Your task to perform on an android device: Open the stopwatch Image 0: 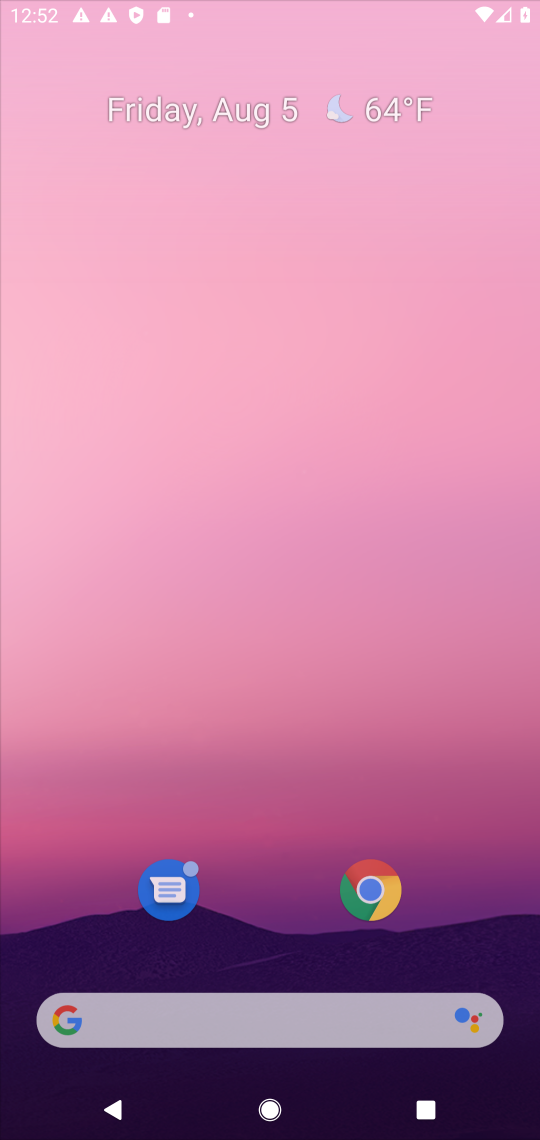
Step 0: press home button
Your task to perform on an android device: Open the stopwatch Image 1: 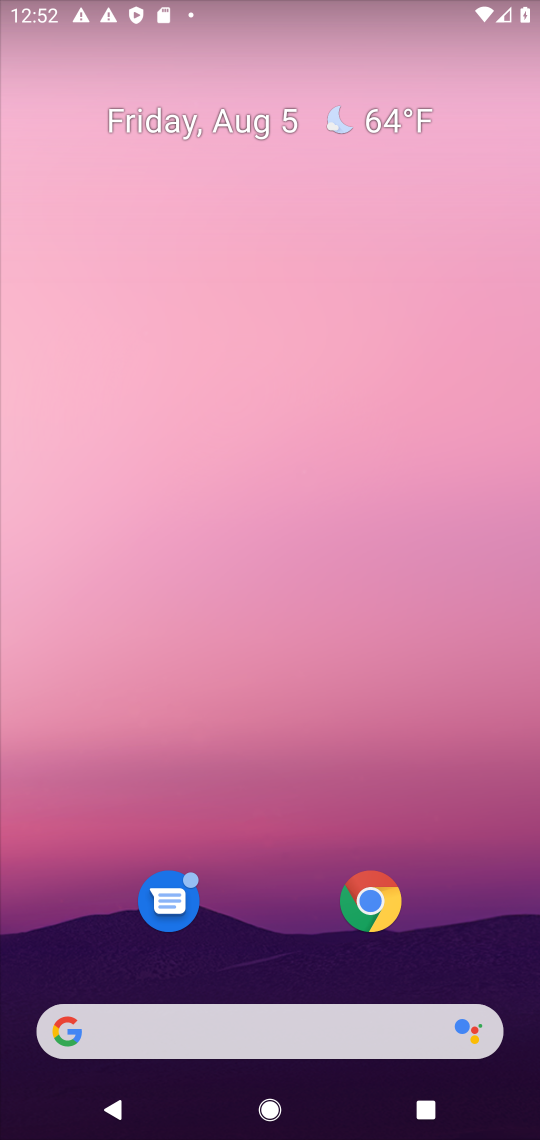
Step 1: drag from (286, 955) to (197, 89)
Your task to perform on an android device: Open the stopwatch Image 2: 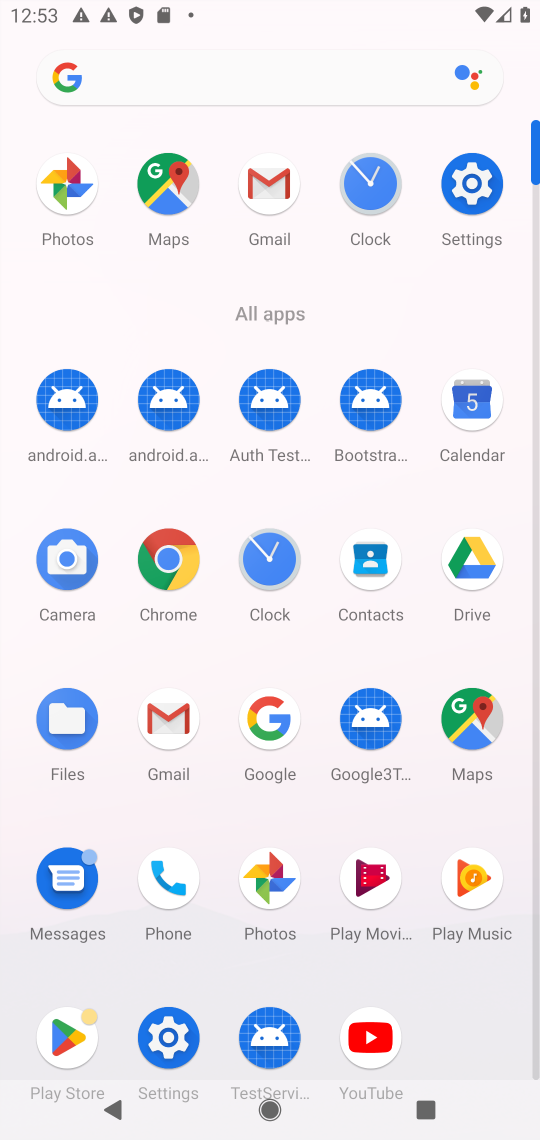
Step 2: click (362, 175)
Your task to perform on an android device: Open the stopwatch Image 3: 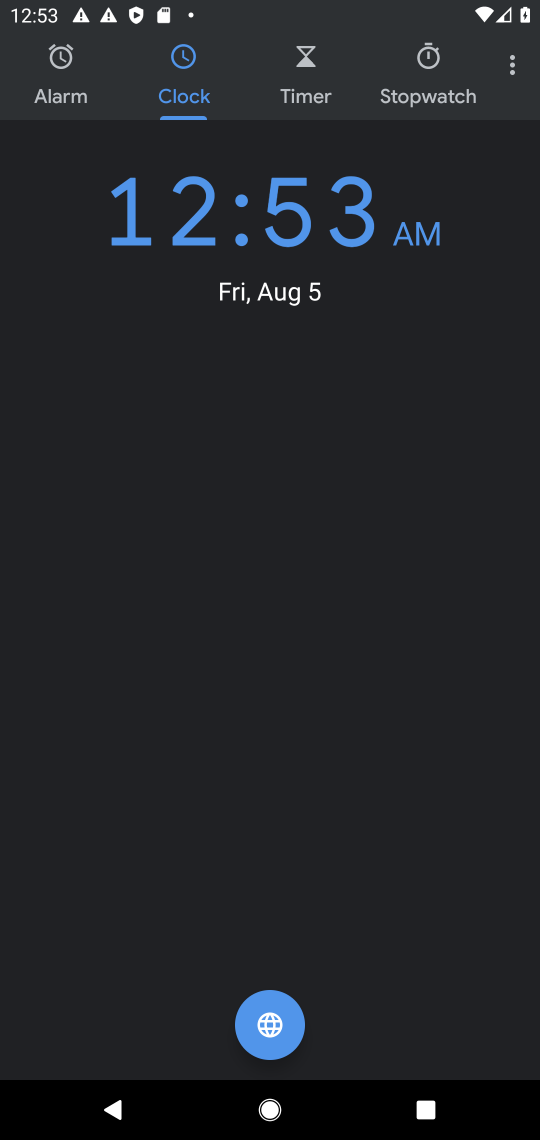
Step 3: click (442, 90)
Your task to perform on an android device: Open the stopwatch Image 4: 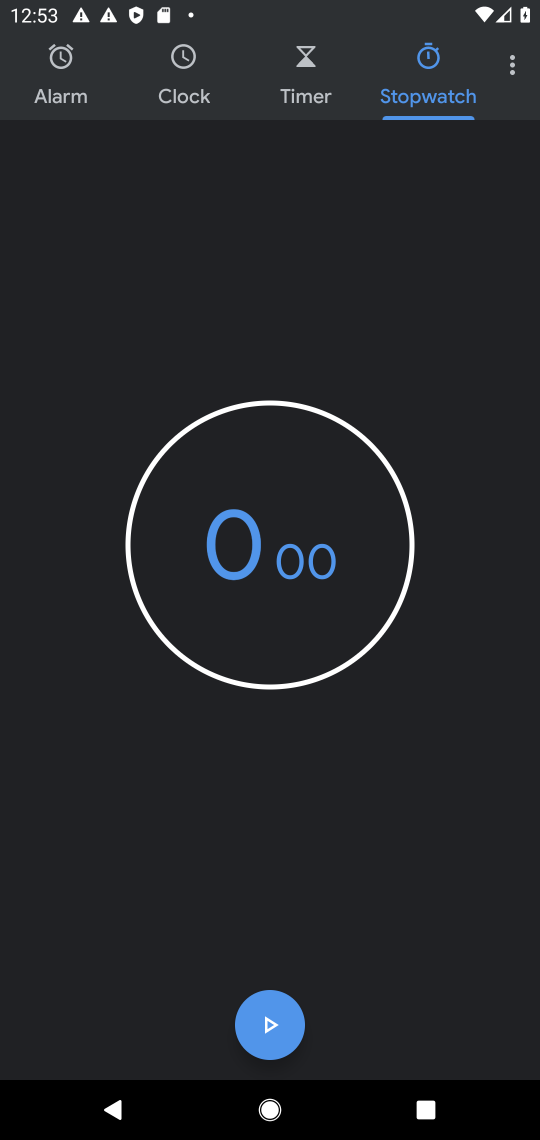
Step 4: task complete